Your task to perform on an android device: change the clock display to show seconds Image 0: 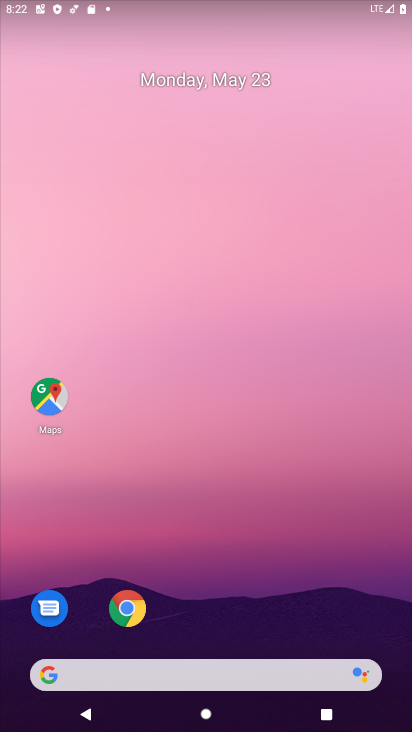
Step 0: drag from (229, 659) to (211, 196)
Your task to perform on an android device: change the clock display to show seconds Image 1: 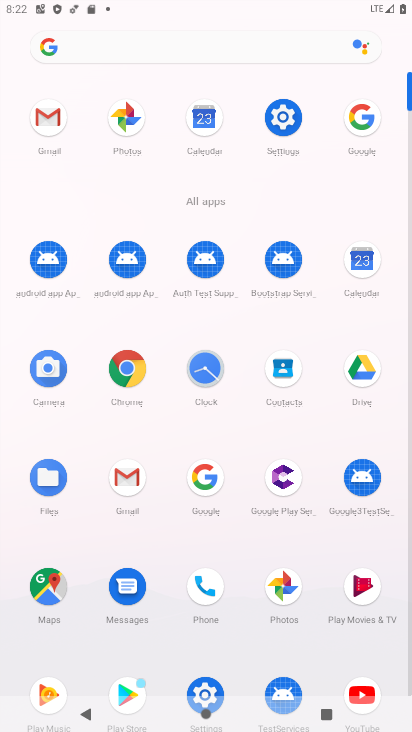
Step 1: click (202, 366)
Your task to perform on an android device: change the clock display to show seconds Image 2: 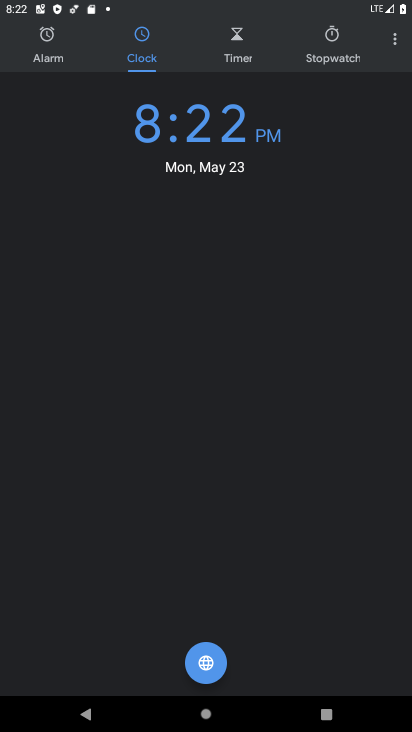
Step 2: click (388, 49)
Your task to perform on an android device: change the clock display to show seconds Image 3: 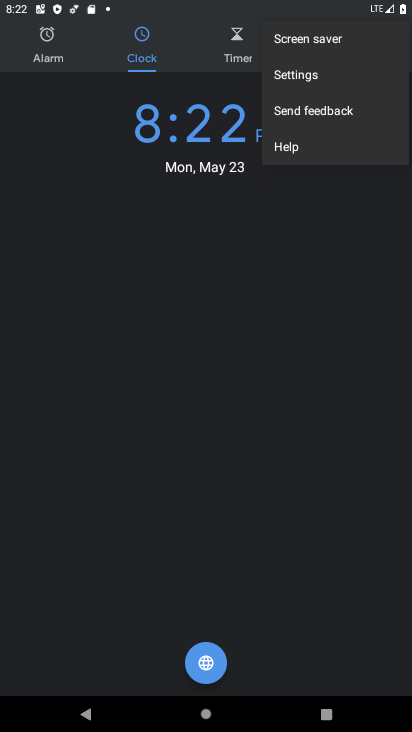
Step 3: click (307, 80)
Your task to perform on an android device: change the clock display to show seconds Image 4: 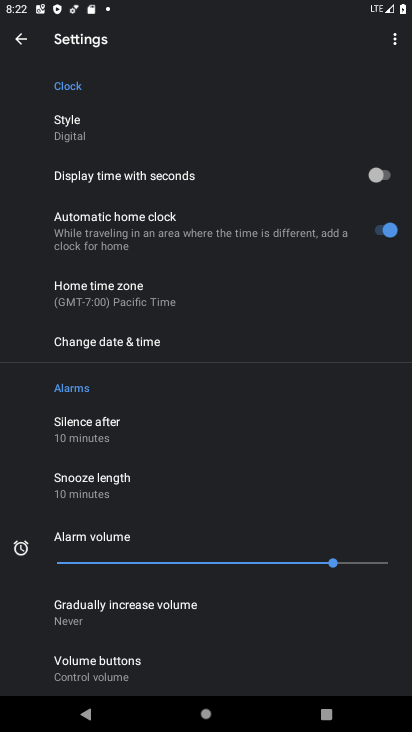
Step 4: click (385, 186)
Your task to perform on an android device: change the clock display to show seconds Image 5: 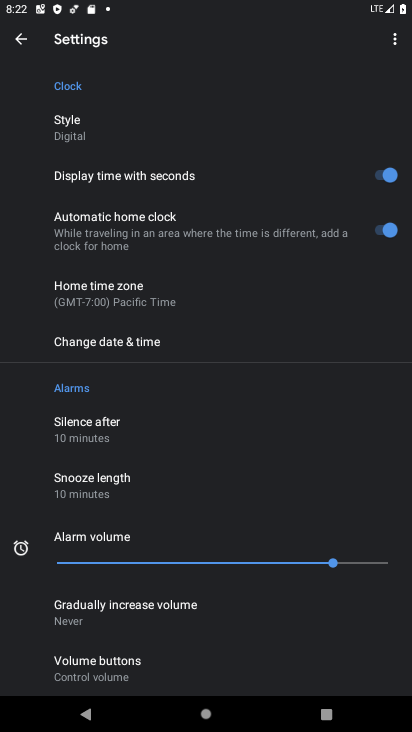
Step 5: task complete